Your task to perform on an android device: turn notification dots off Image 0: 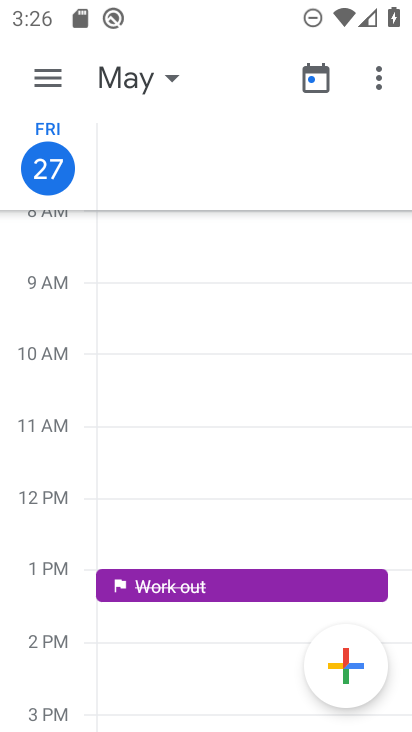
Step 0: press home button
Your task to perform on an android device: turn notification dots off Image 1: 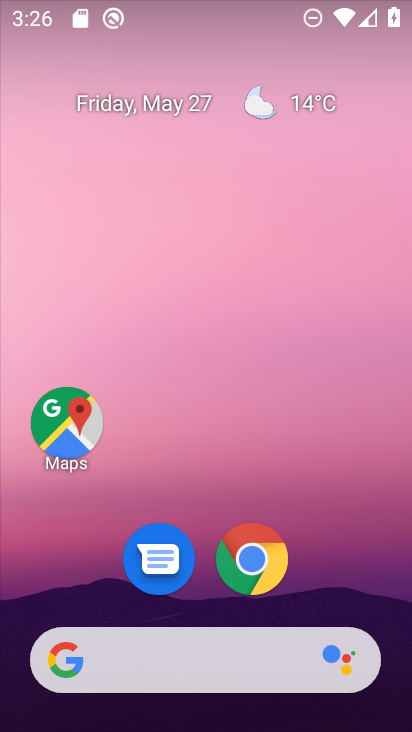
Step 1: drag from (359, 570) to (311, 60)
Your task to perform on an android device: turn notification dots off Image 2: 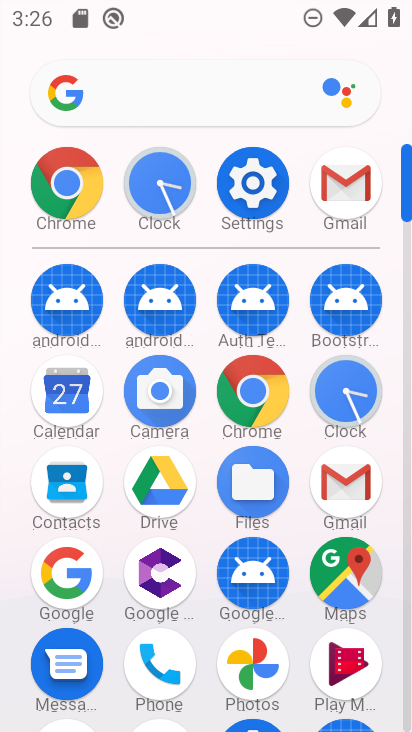
Step 2: click (261, 211)
Your task to perform on an android device: turn notification dots off Image 3: 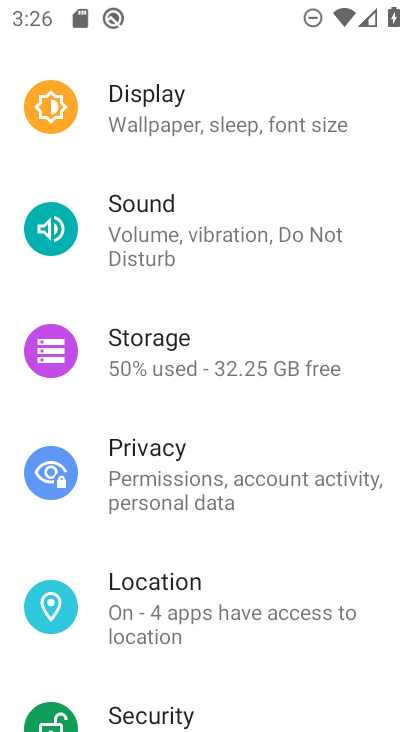
Step 3: drag from (290, 187) to (261, 519)
Your task to perform on an android device: turn notification dots off Image 4: 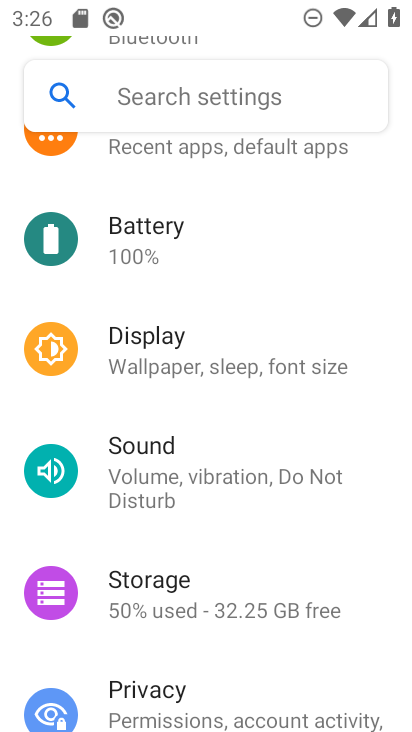
Step 4: drag from (251, 262) to (235, 545)
Your task to perform on an android device: turn notification dots off Image 5: 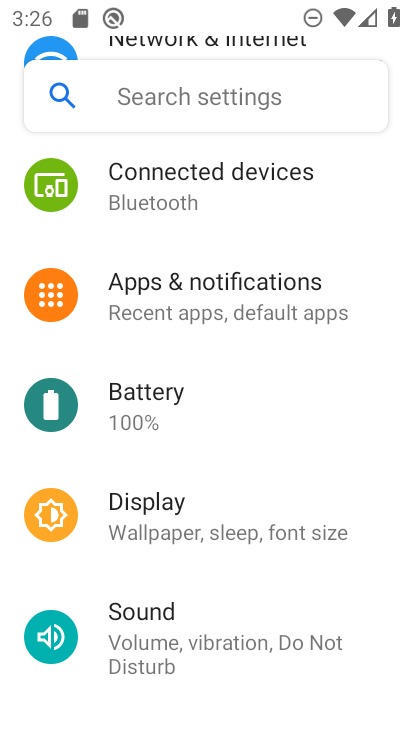
Step 5: click (252, 292)
Your task to perform on an android device: turn notification dots off Image 6: 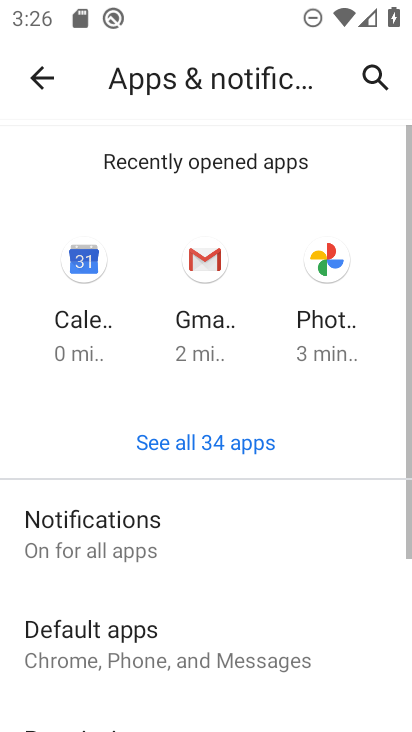
Step 6: click (135, 531)
Your task to perform on an android device: turn notification dots off Image 7: 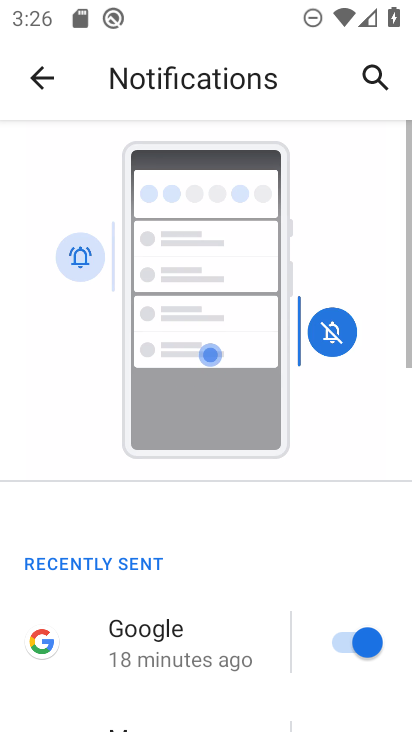
Step 7: drag from (272, 572) to (288, 157)
Your task to perform on an android device: turn notification dots off Image 8: 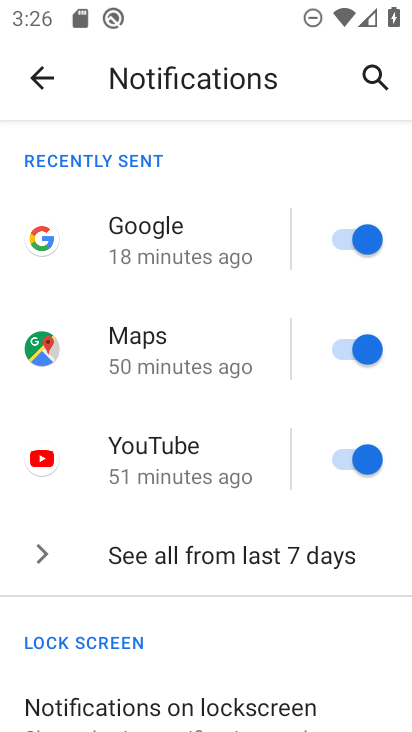
Step 8: drag from (275, 602) to (252, 205)
Your task to perform on an android device: turn notification dots off Image 9: 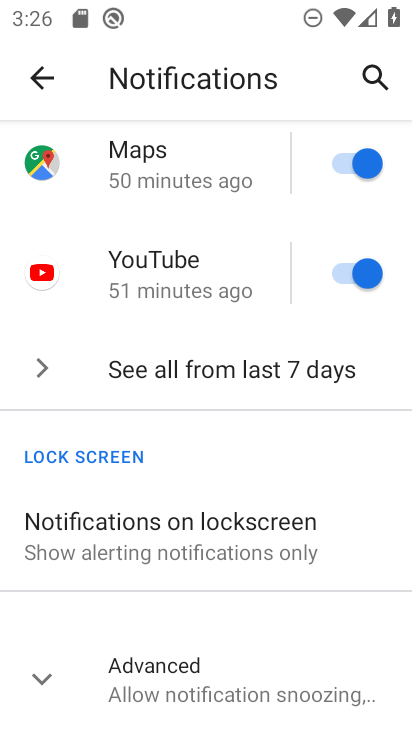
Step 9: click (126, 684)
Your task to perform on an android device: turn notification dots off Image 10: 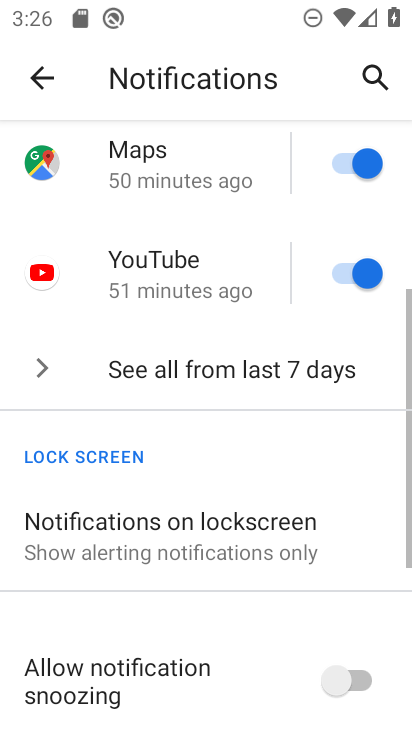
Step 10: drag from (265, 578) to (284, 75)
Your task to perform on an android device: turn notification dots off Image 11: 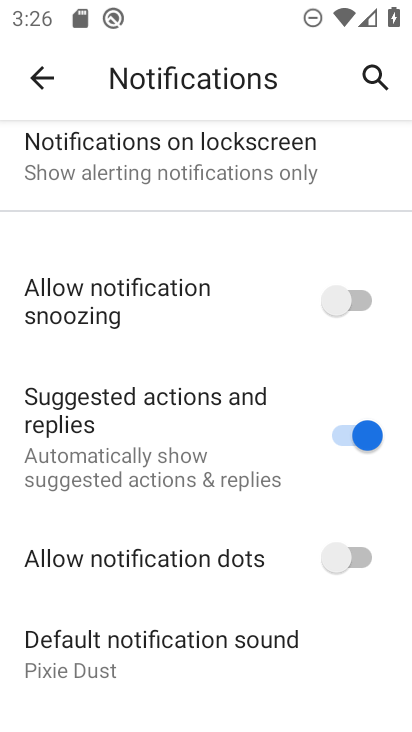
Step 11: click (337, 564)
Your task to perform on an android device: turn notification dots off Image 12: 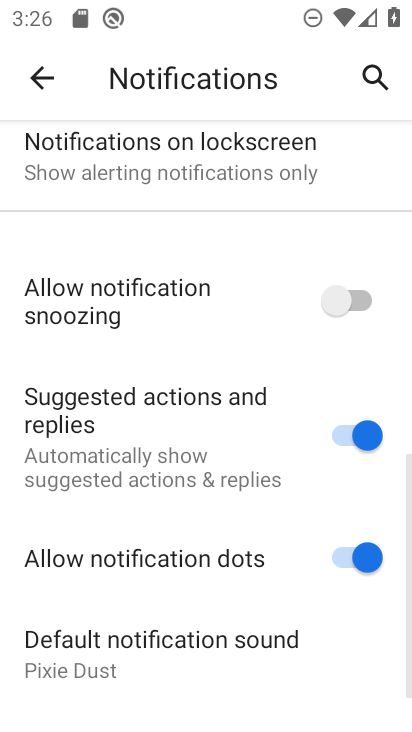
Step 12: click (347, 564)
Your task to perform on an android device: turn notification dots off Image 13: 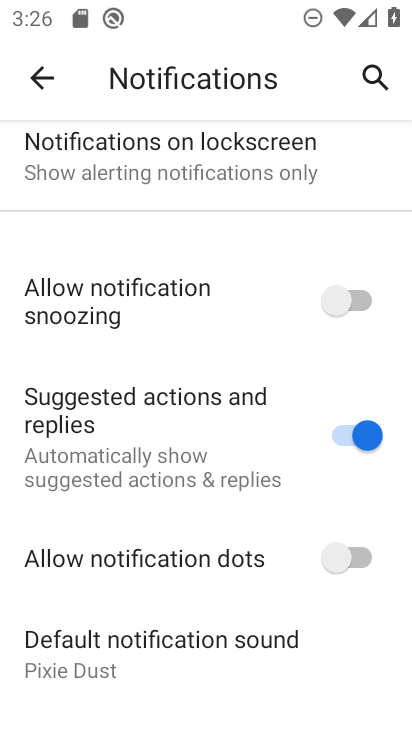
Step 13: task complete